Your task to perform on an android device: Open location settings Image 0: 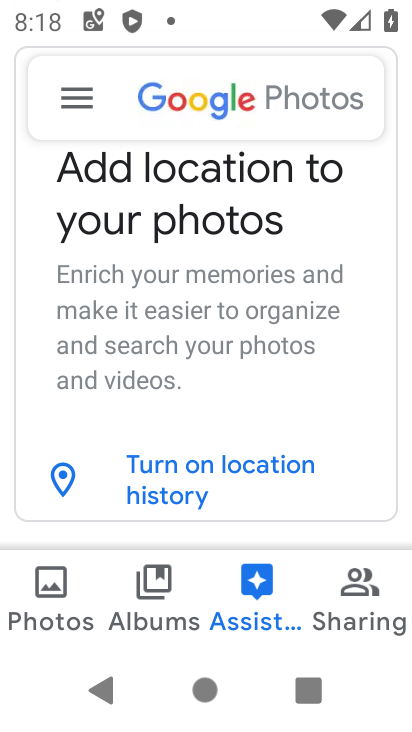
Step 0: press home button
Your task to perform on an android device: Open location settings Image 1: 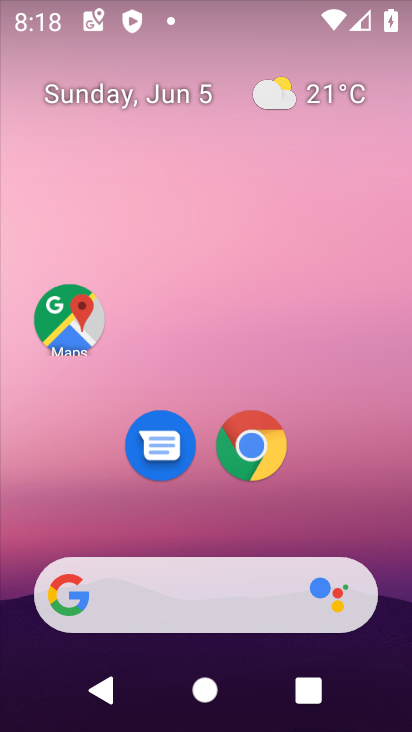
Step 1: drag from (228, 508) to (229, 4)
Your task to perform on an android device: Open location settings Image 2: 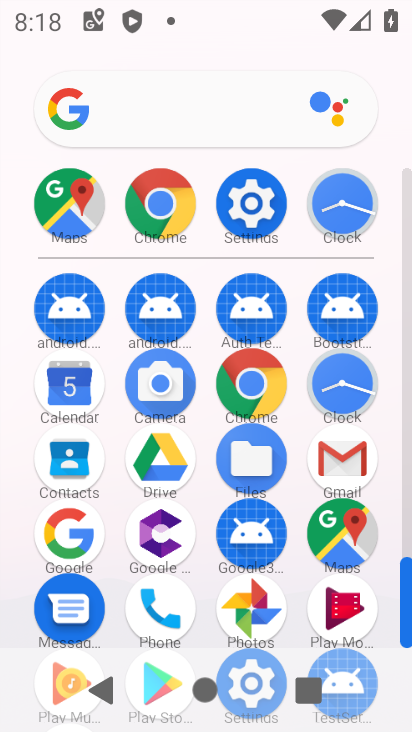
Step 2: click (255, 195)
Your task to perform on an android device: Open location settings Image 3: 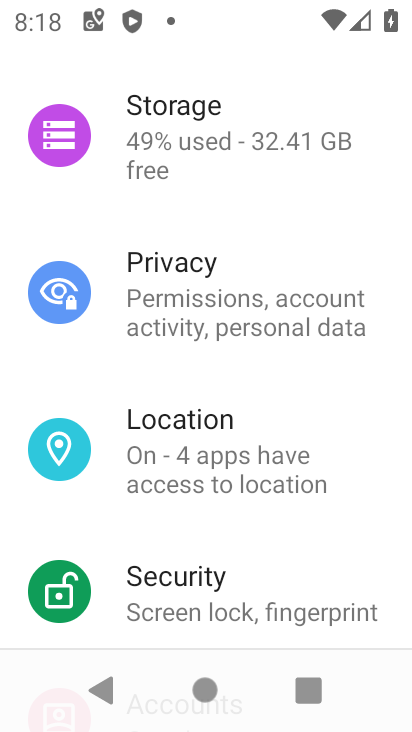
Step 3: click (203, 462)
Your task to perform on an android device: Open location settings Image 4: 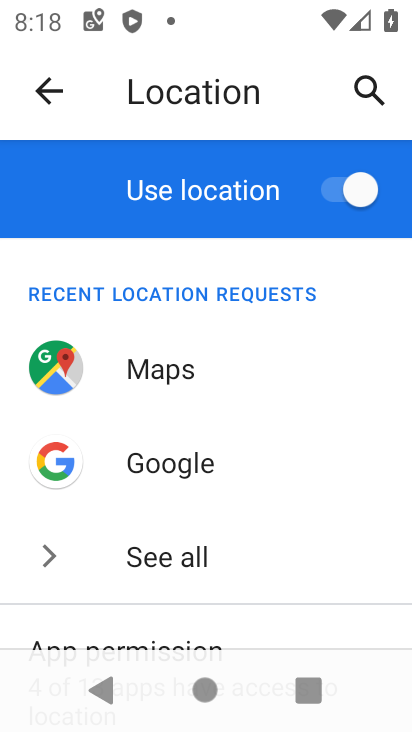
Step 4: task complete